Your task to perform on an android device: turn off notifications in google photos Image 0: 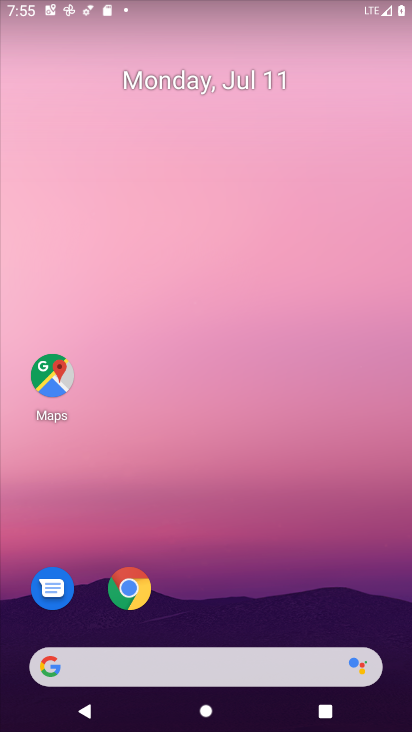
Step 0: drag from (373, 619) to (262, 54)
Your task to perform on an android device: turn off notifications in google photos Image 1: 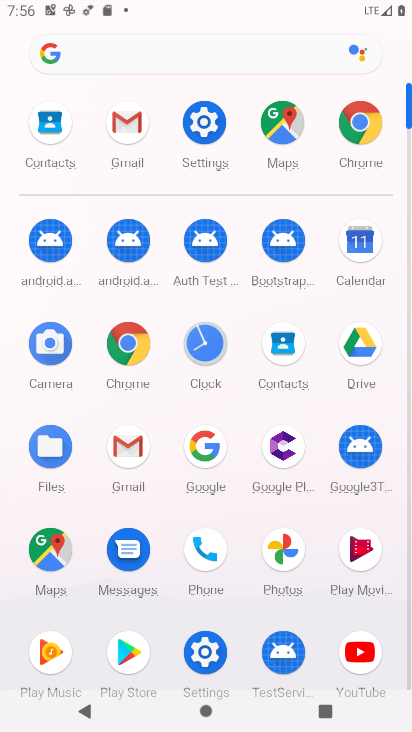
Step 1: click (292, 563)
Your task to perform on an android device: turn off notifications in google photos Image 2: 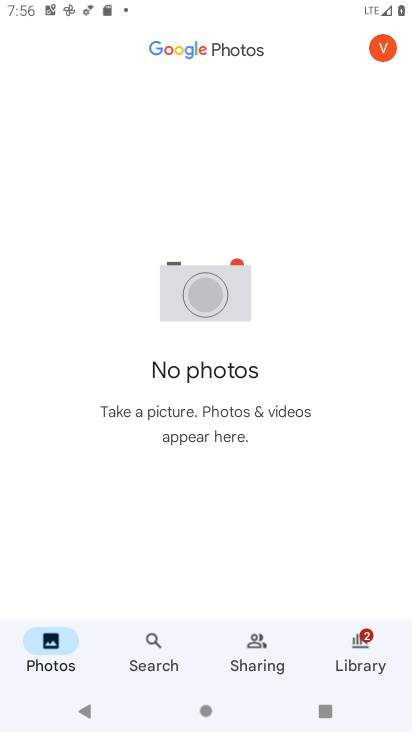
Step 2: press home button
Your task to perform on an android device: turn off notifications in google photos Image 3: 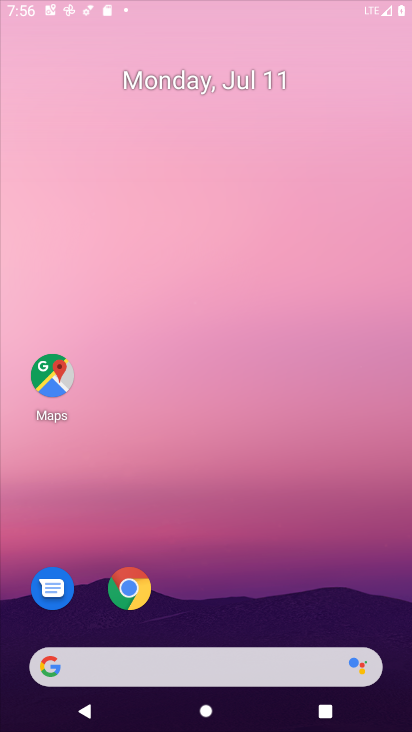
Step 3: drag from (389, 607) to (211, 9)
Your task to perform on an android device: turn off notifications in google photos Image 4: 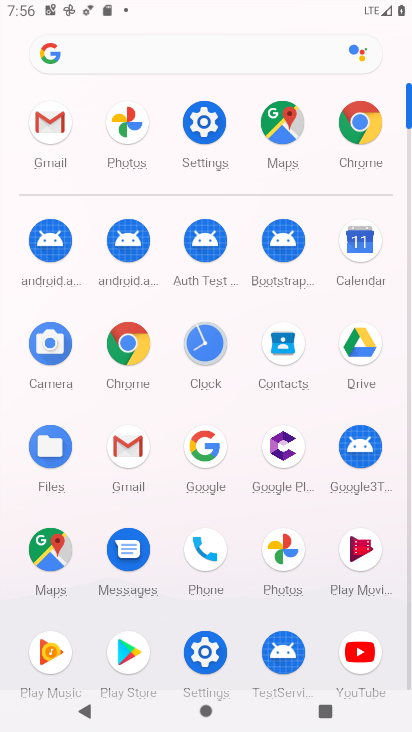
Step 4: click (282, 554)
Your task to perform on an android device: turn off notifications in google photos Image 5: 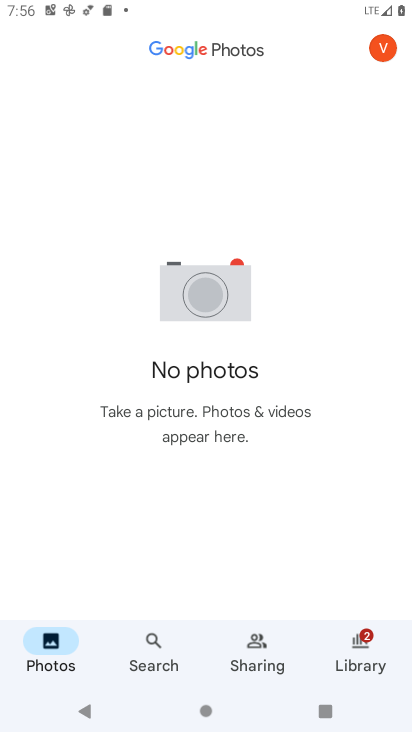
Step 5: click (380, 43)
Your task to perform on an android device: turn off notifications in google photos Image 6: 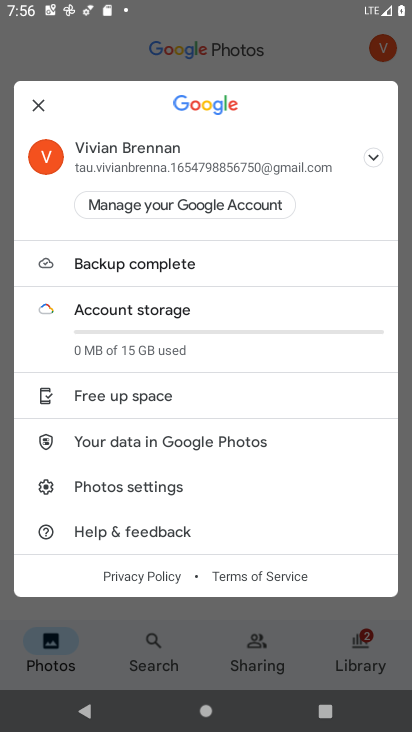
Step 6: click (123, 479)
Your task to perform on an android device: turn off notifications in google photos Image 7: 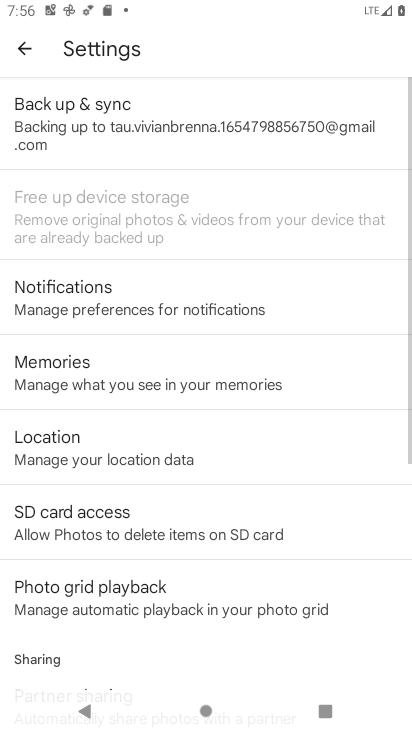
Step 7: click (70, 294)
Your task to perform on an android device: turn off notifications in google photos Image 8: 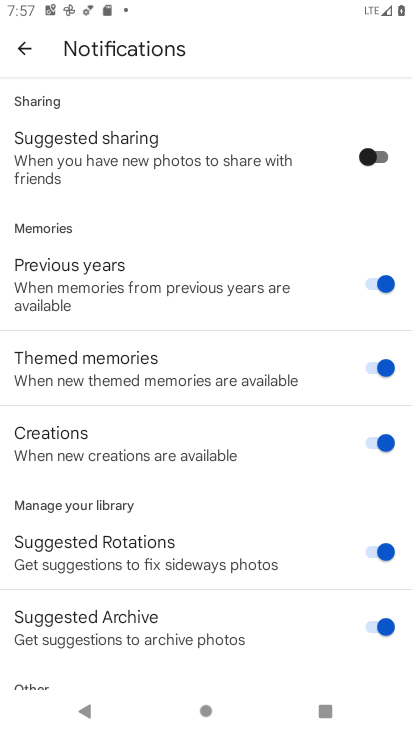
Step 8: task complete